Your task to perform on an android device: Open settings on Google Maps Image 0: 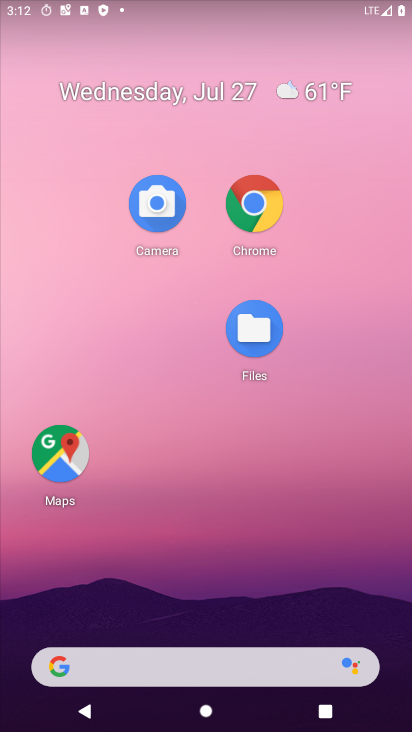
Step 0: click (46, 455)
Your task to perform on an android device: Open settings on Google Maps Image 1: 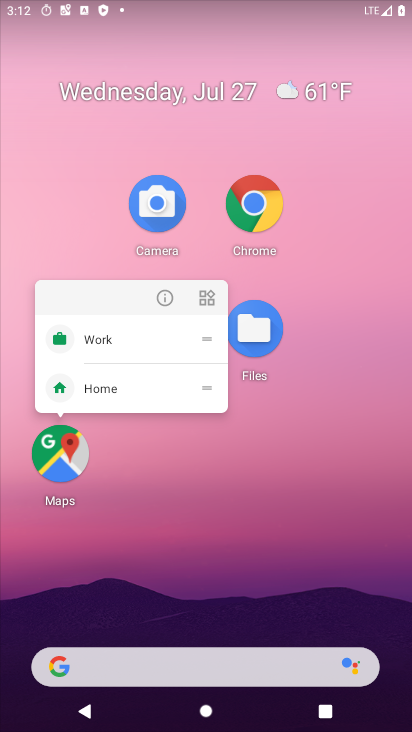
Step 1: click (46, 454)
Your task to perform on an android device: Open settings on Google Maps Image 2: 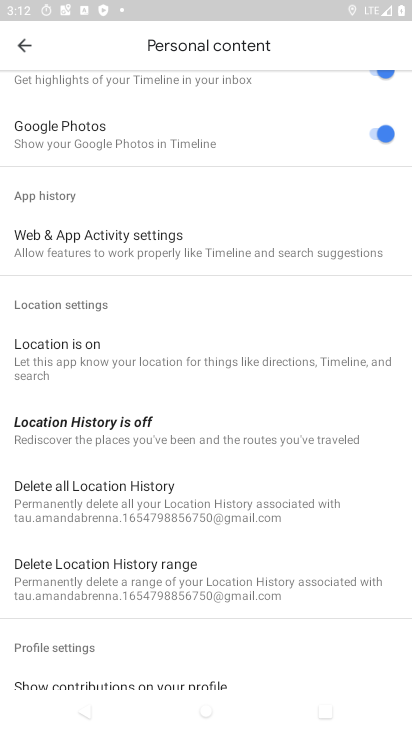
Step 2: click (14, 50)
Your task to perform on an android device: Open settings on Google Maps Image 3: 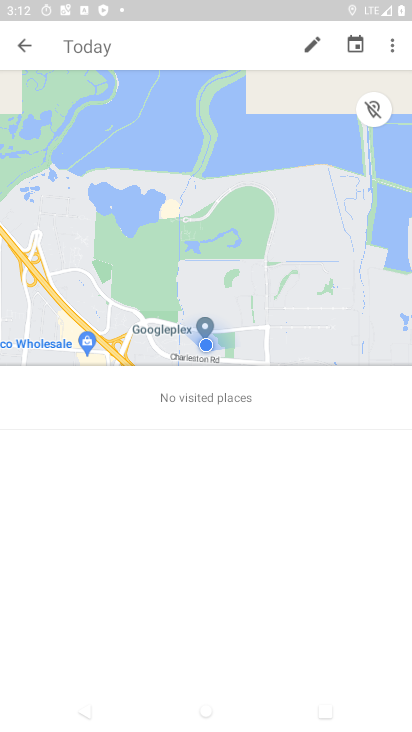
Step 3: task complete